Your task to perform on an android device: Is it going to rain this weekend? Image 0: 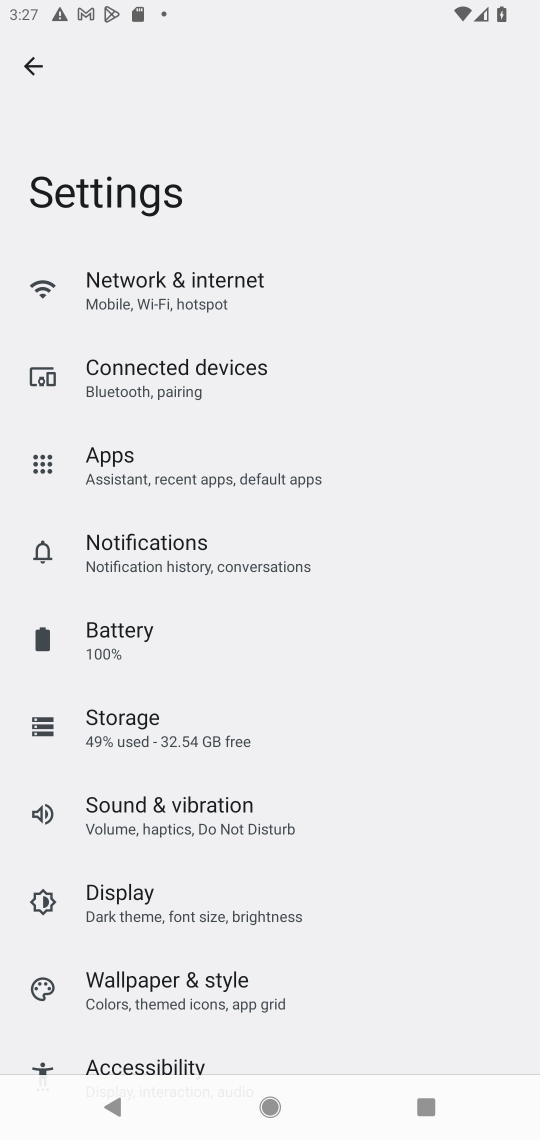
Step 0: press home button
Your task to perform on an android device: Is it going to rain this weekend? Image 1: 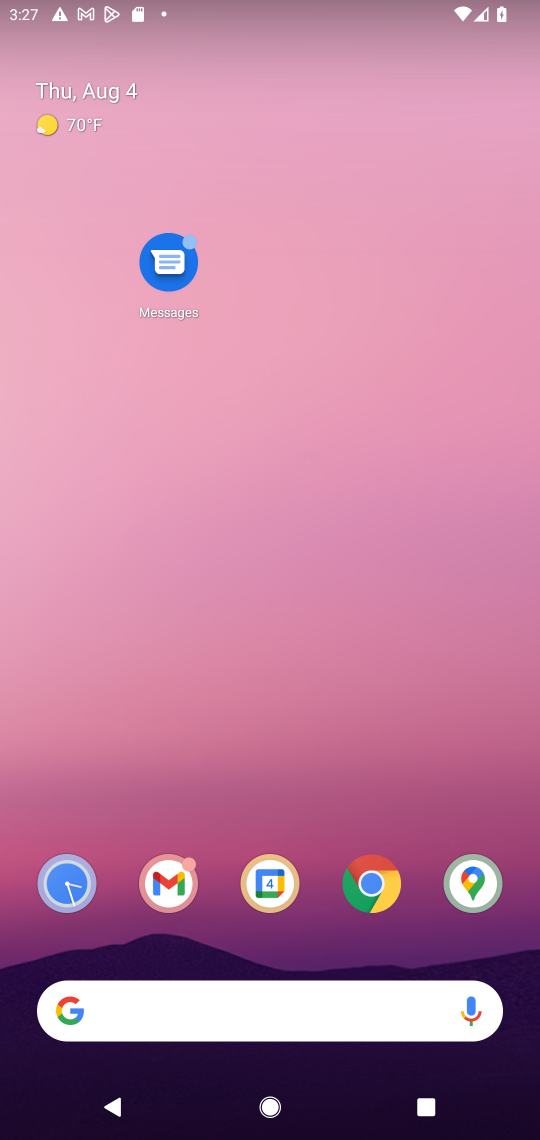
Step 1: drag from (284, 974) to (261, 68)
Your task to perform on an android device: Is it going to rain this weekend? Image 2: 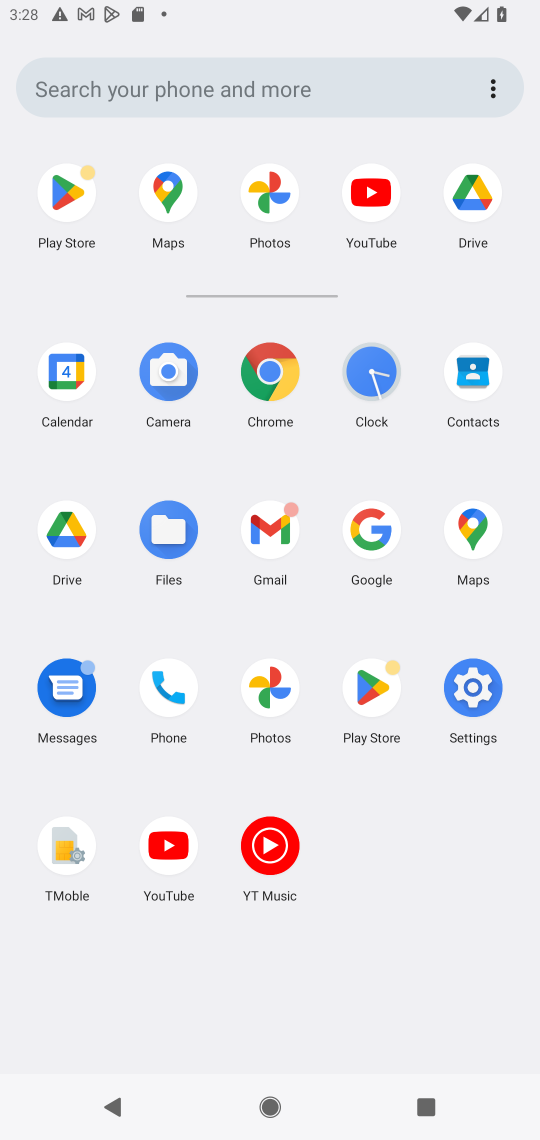
Step 2: click (369, 534)
Your task to perform on an android device: Is it going to rain this weekend? Image 3: 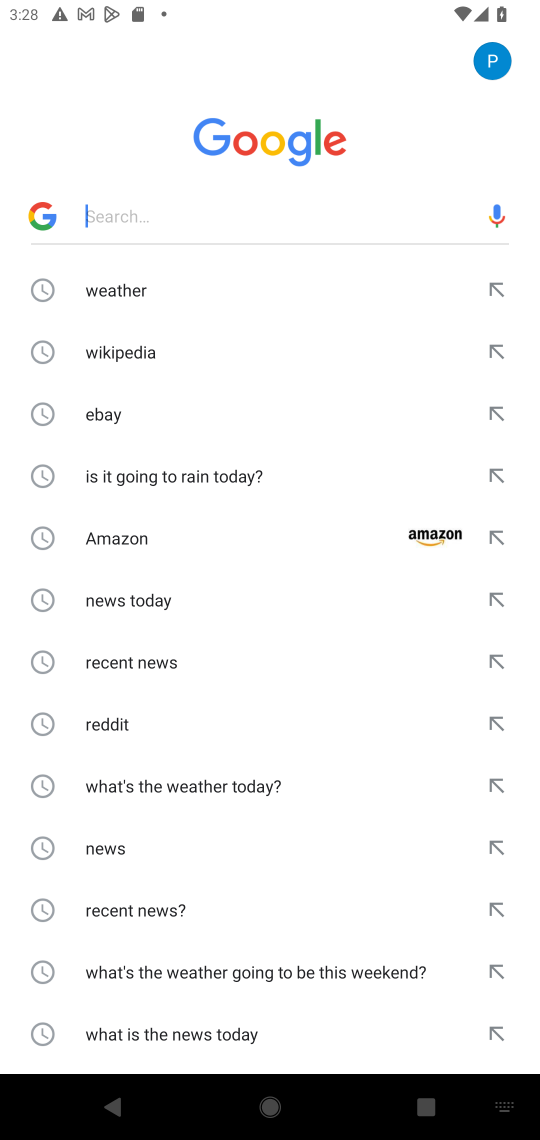
Step 3: click (111, 285)
Your task to perform on an android device: Is it going to rain this weekend? Image 4: 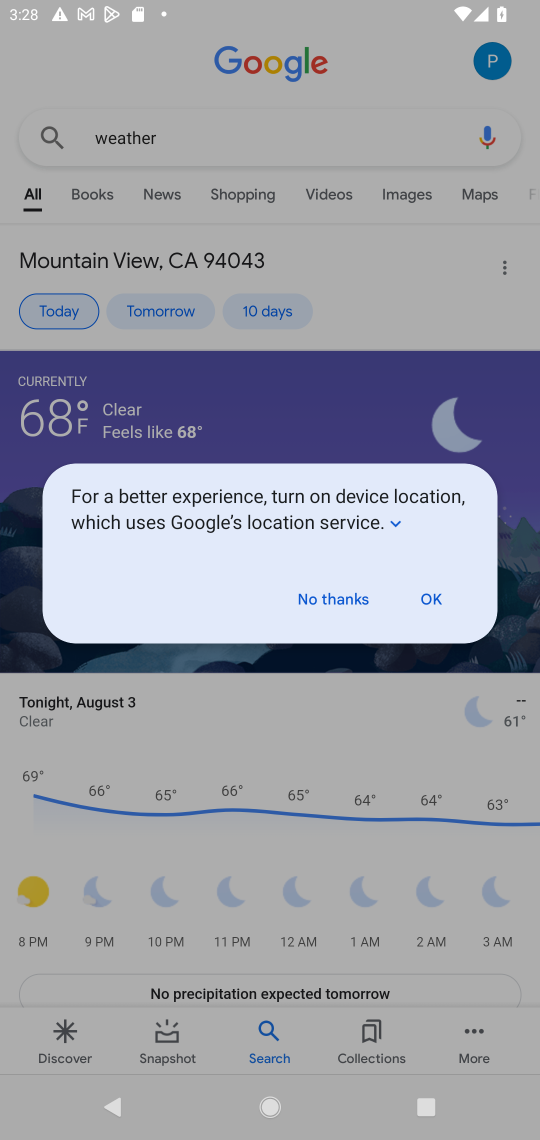
Step 4: click (431, 597)
Your task to perform on an android device: Is it going to rain this weekend? Image 5: 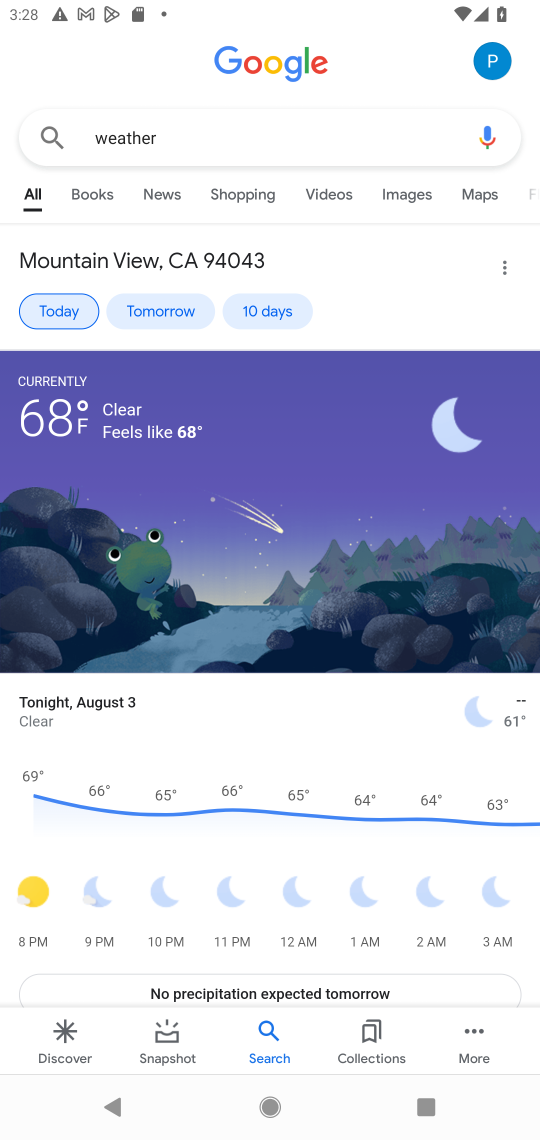
Step 5: click (267, 309)
Your task to perform on an android device: Is it going to rain this weekend? Image 6: 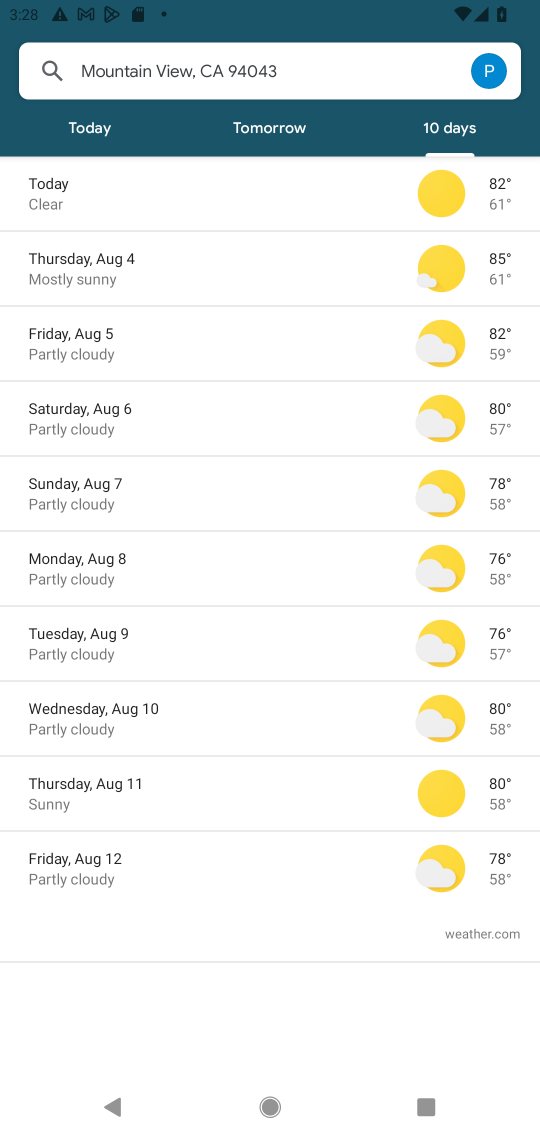
Step 6: click (100, 403)
Your task to perform on an android device: Is it going to rain this weekend? Image 7: 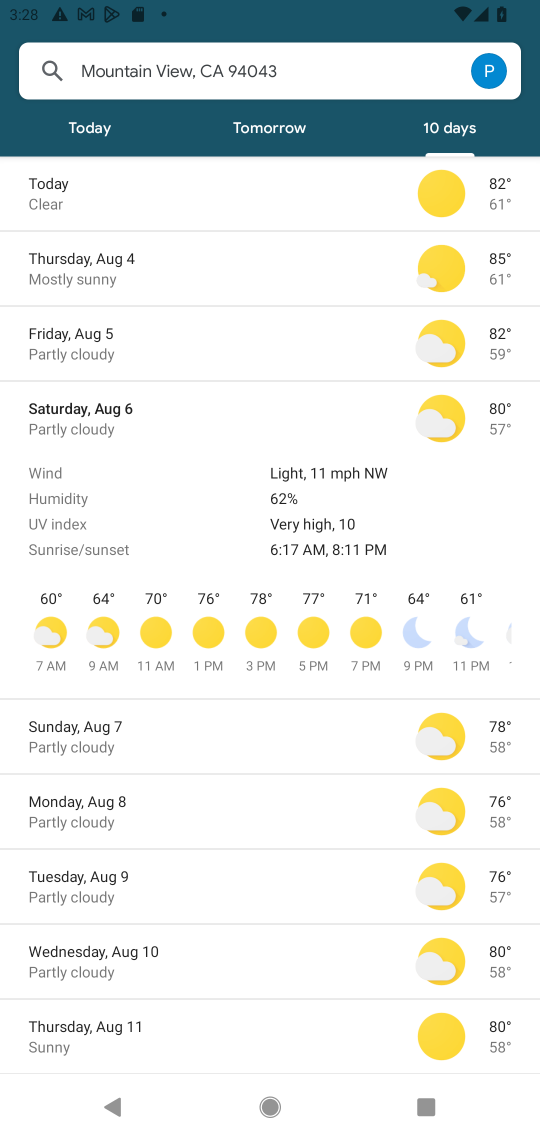
Step 7: task complete